Your task to perform on an android device: delete browsing data in the chrome app Image 0: 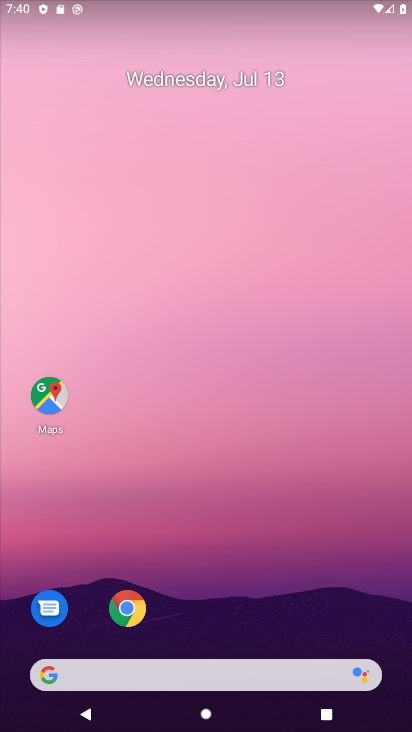
Step 0: click (115, 605)
Your task to perform on an android device: delete browsing data in the chrome app Image 1: 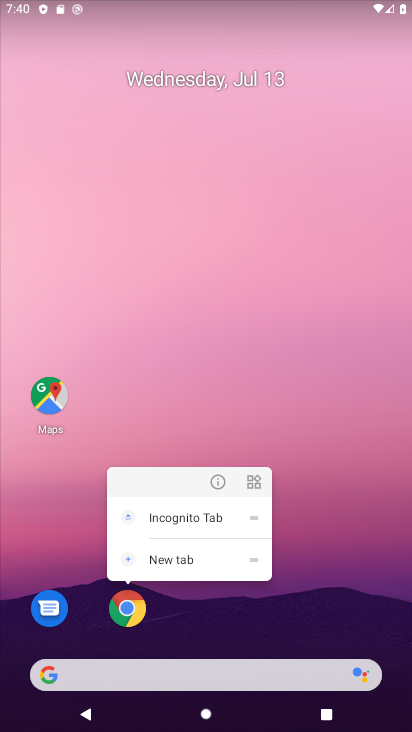
Step 1: click (126, 612)
Your task to perform on an android device: delete browsing data in the chrome app Image 2: 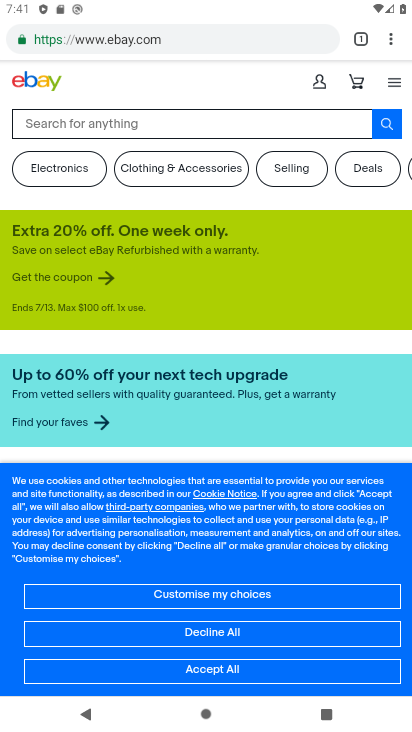
Step 2: click (393, 47)
Your task to perform on an android device: delete browsing data in the chrome app Image 3: 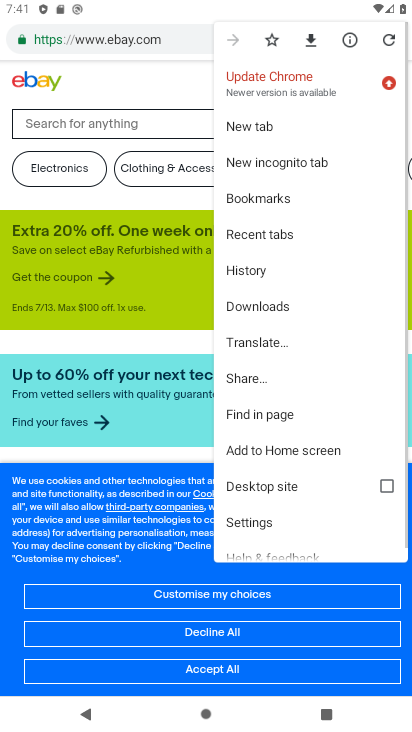
Step 3: click (253, 269)
Your task to perform on an android device: delete browsing data in the chrome app Image 4: 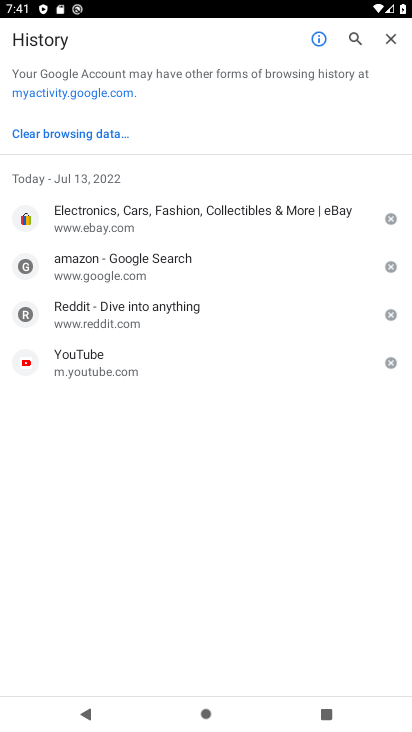
Step 4: click (56, 135)
Your task to perform on an android device: delete browsing data in the chrome app Image 5: 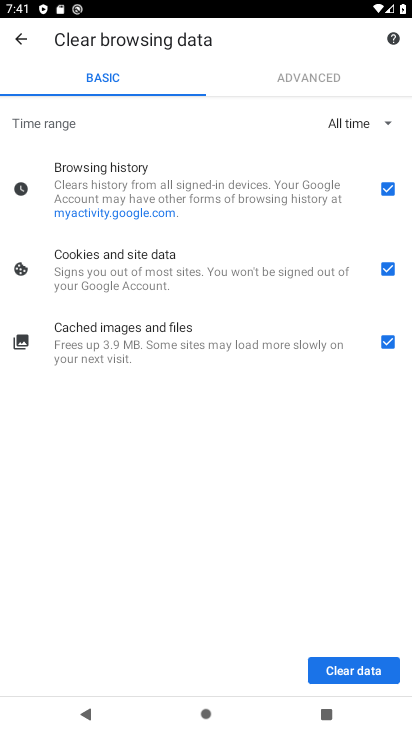
Step 5: click (388, 671)
Your task to perform on an android device: delete browsing data in the chrome app Image 6: 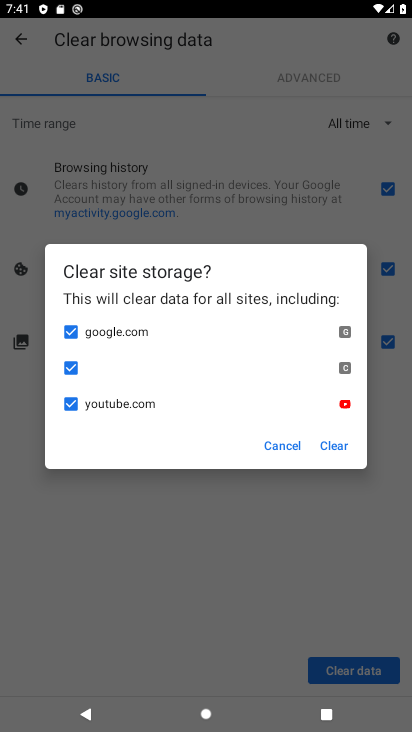
Step 6: click (329, 446)
Your task to perform on an android device: delete browsing data in the chrome app Image 7: 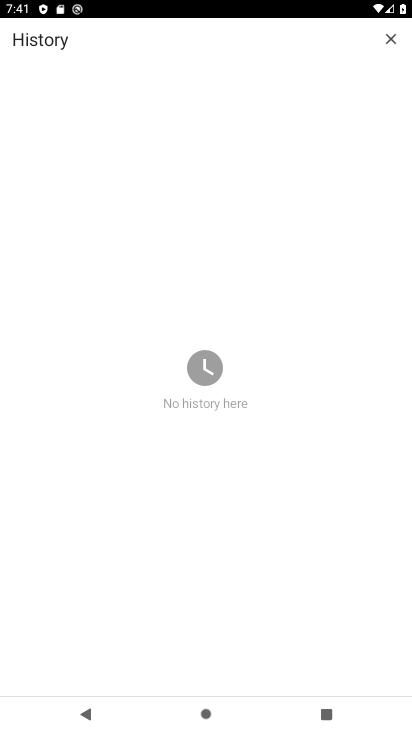
Step 7: task complete